Your task to perform on an android device: open app "DoorDash - Dasher" (install if not already installed) Image 0: 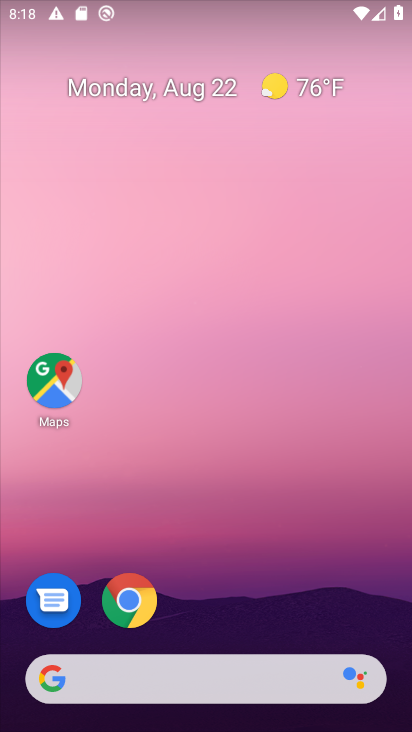
Step 0: drag from (192, 591) to (191, 189)
Your task to perform on an android device: open app "DoorDash - Dasher" (install if not already installed) Image 1: 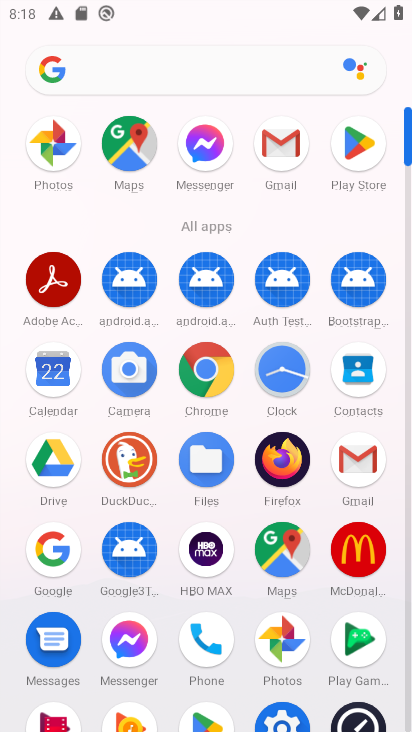
Step 1: click (351, 131)
Your task to perform on an android device: open app "DoorDash - Dasher" (install if not already installed) Image 2: 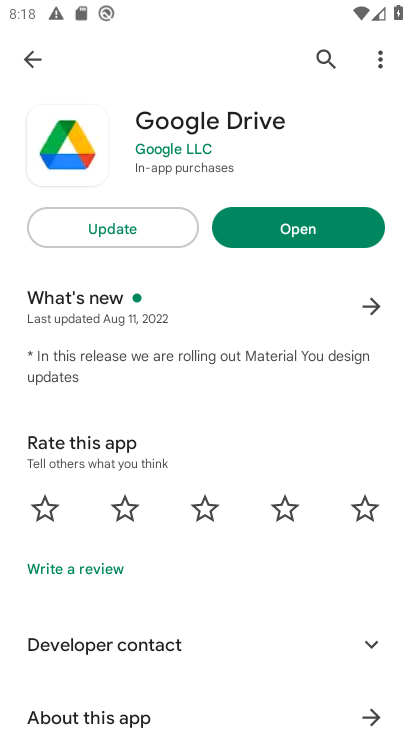
Step 2: click (333, 62)
Your task to perform on an android device: open app "DoorDash - Dasher" (install if not already installed) Image 3: 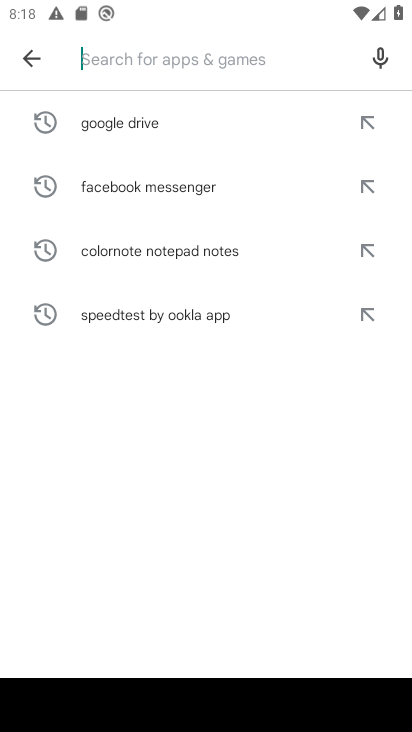
Step 3: type "DoorDash - Dasher"
Your task to perform on an android device: open app "DoorDash - Dasher" (install if not already installed) Image 4: 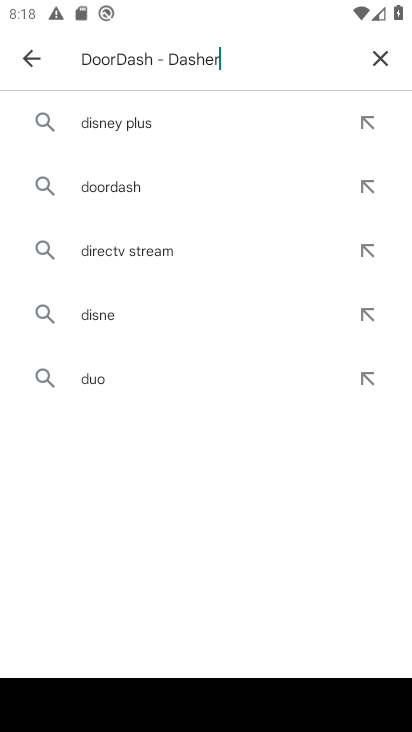
Step 4: type ""
Your task to perform on an android device: open app "DoorDash - Dasher" (install if not already installed) Image 5: 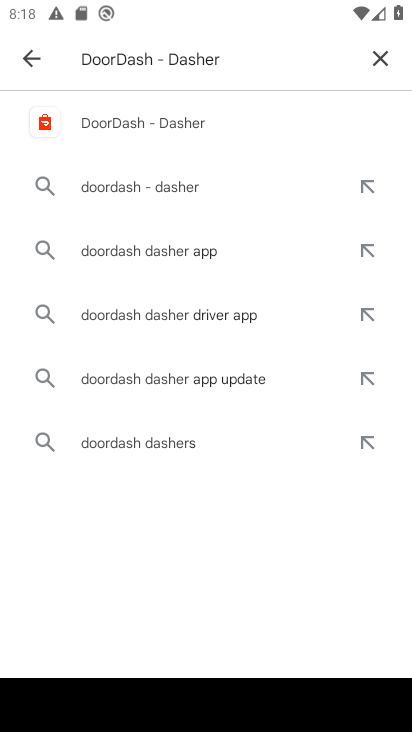
Step 5: click (176, 128)
Your task to perform on an android device: open app "DoorDash - Dasher" (install if not already installed) Image 6: 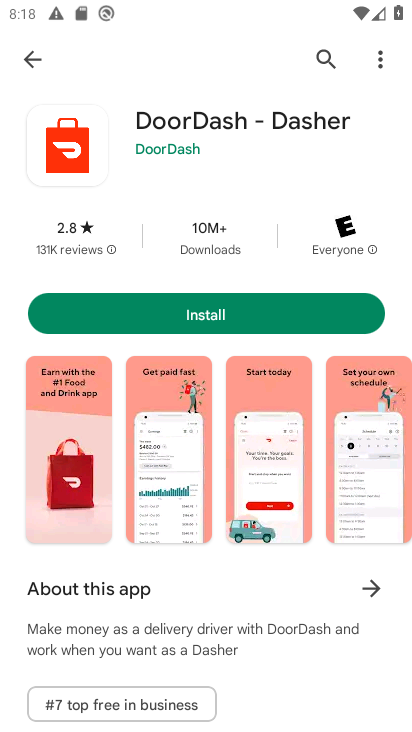
Step 6: click (230, 317)
Your task to perform on an android device: open app "DoorDash - Dasher" (install if not already installed) Image 7: 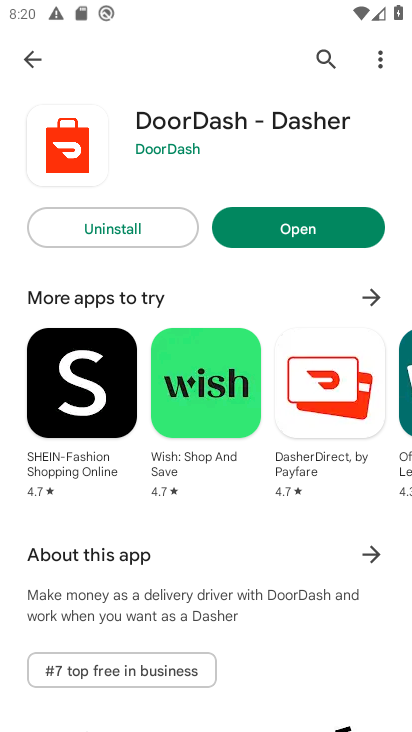
Step 7: click (293, 229)
Your task to perform on an android device: open app "DoorDash - Dasher" (install if not already installed) Image 8: 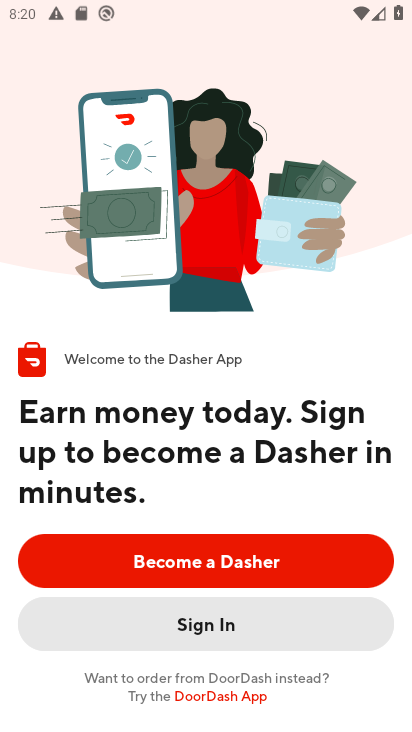
Step 8: task complete